Your task to perform on an android device: Set the phone to "Do not disturb". Image 0: 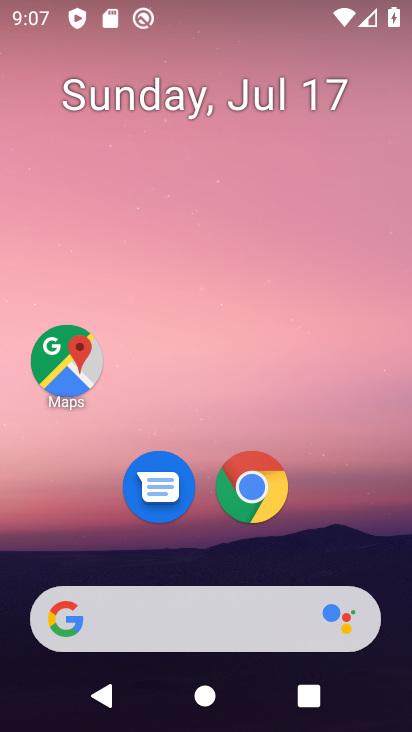
Step 0: drag from (236, 35) to (248, 287)
Your task to perform on an android device: Set the phone to "Do not disturb". Image 1: 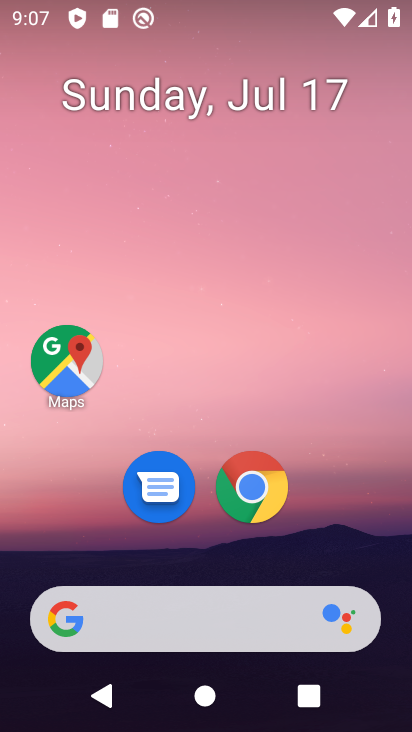
Step 1: drag from (223, 4) to (236, 724)
Your task to perform on an android device: Set the phone to "Do not disturb". Image 2: 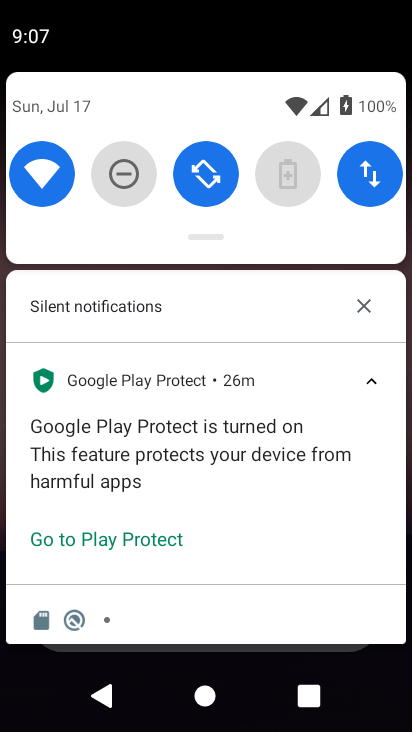
Step 2: drag from (199, 40) to (195, 574)
Your task to perform on an android device: Set the phone to "Do not disturb". Image 3: 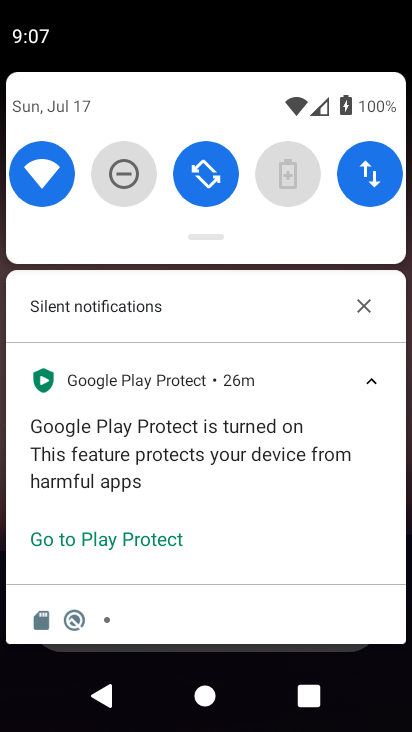
Step 3: drag from (190, 250) to (183, 650)
Your task to perform on an android device: Set the phone to "Do not disturb". Image 4: 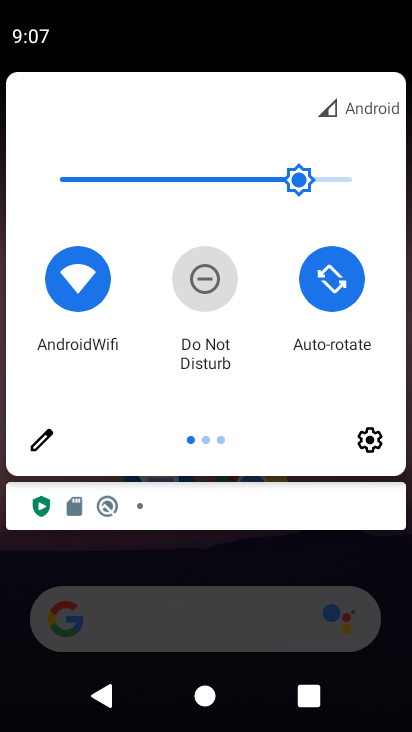
Step 4: click (195, 271)
Your task to perform on an android device: Set the phone to "Do not disturb". Image 5: 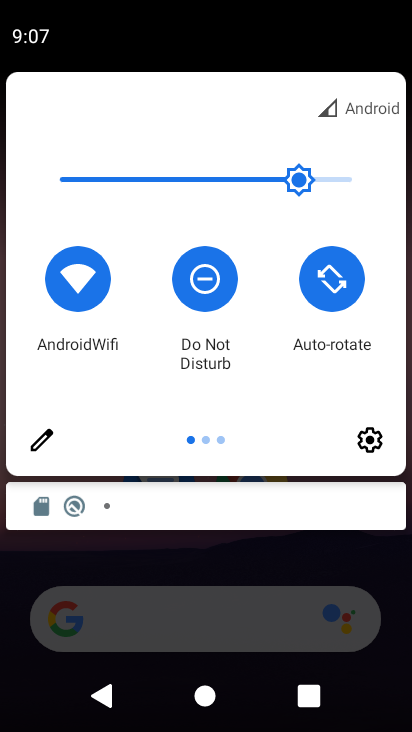
Step 5: task complete